Your task to perform on an android device: turn on wifi Image 0: 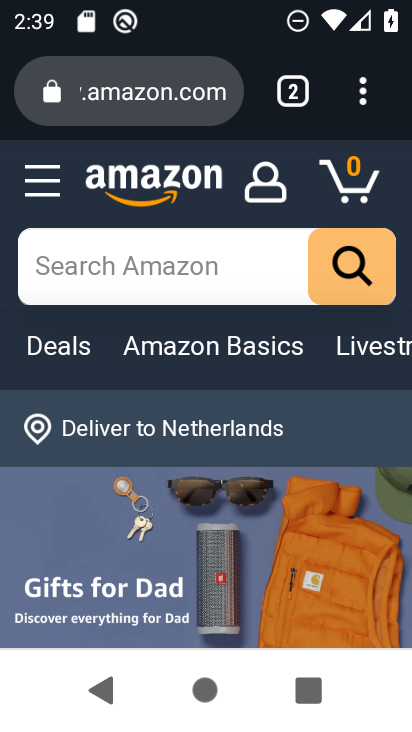
Step 0: drag from (210, 15) to (232, 587)
Your task to perform on an android device: turn on wifi Image 1: 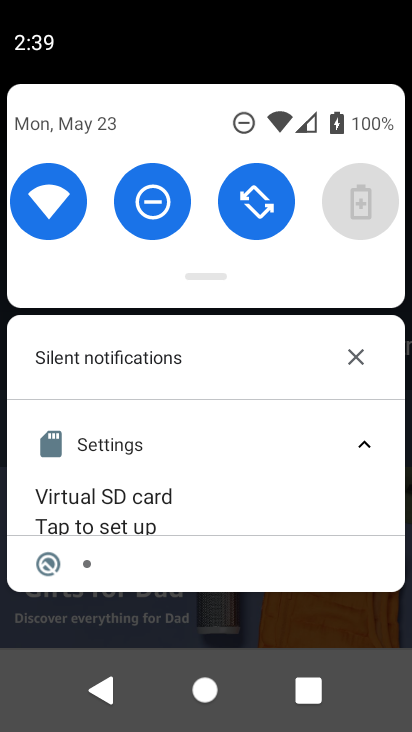
Step 1: task complete